Your task to perform on an android device: Open the Play Movies app and select the watchlist tab. Image 0: 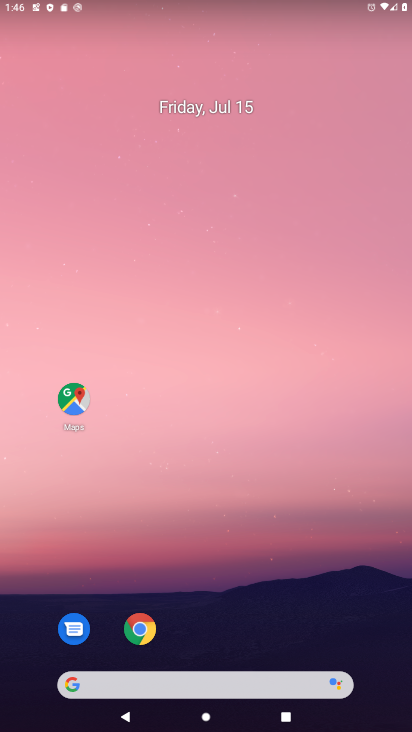
Step 0: drag from (286, 539) to (286, 184)
Your task to perform on an android device: Open the Play Movies app and select the watchlist tab. Image 1: 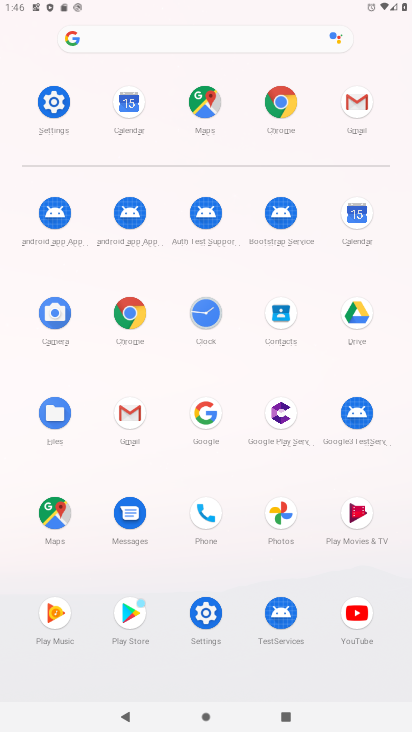
Step 1: click (356, 525)
Your task to perform on an android device: Open the Play Movies app and select the watchlist tab. Image 2: 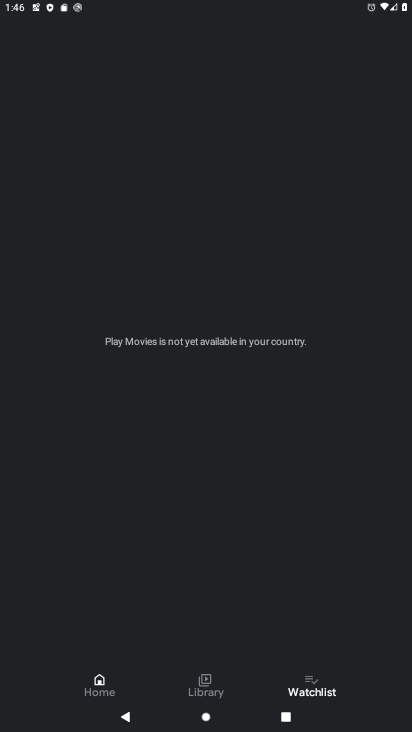
Step 2: click (295, 676)
Your task to perform on an android device: Open the Play Movies app and select the watchlist tab. Image 3: 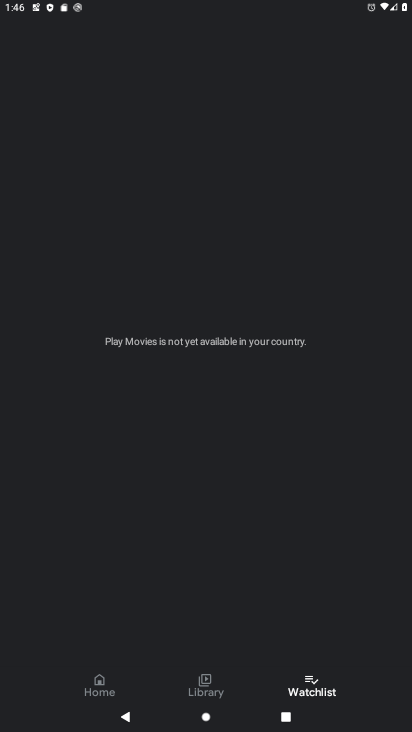
Step 3: task complete